Your task to perform on an android device: Open internet settings Image 0: 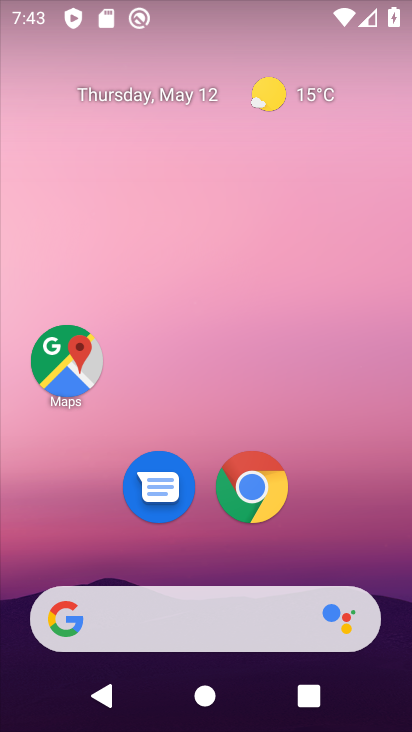
Step 0: drag from (372, 527) to (358, 10)
Your task to perform on an android device: Open internet settings Image 1: 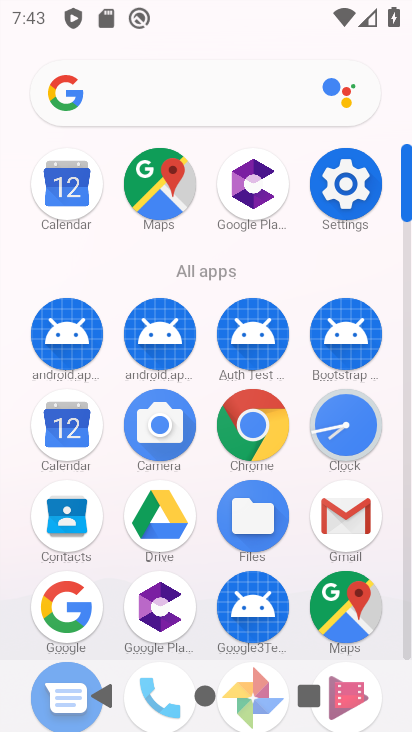
Step 1: click (361, 205)
Your task to perform on an android device: Open internet settings Image 2: 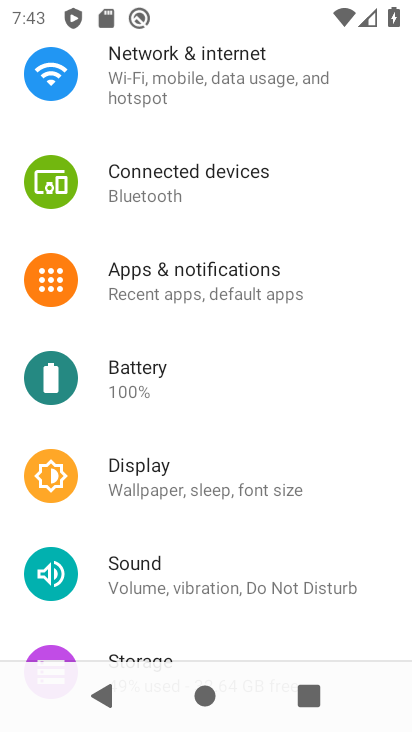
Step 2: drag from (247, 216) to (218, 595)
Your task to perform on an android device: Open internet settings Image 3: 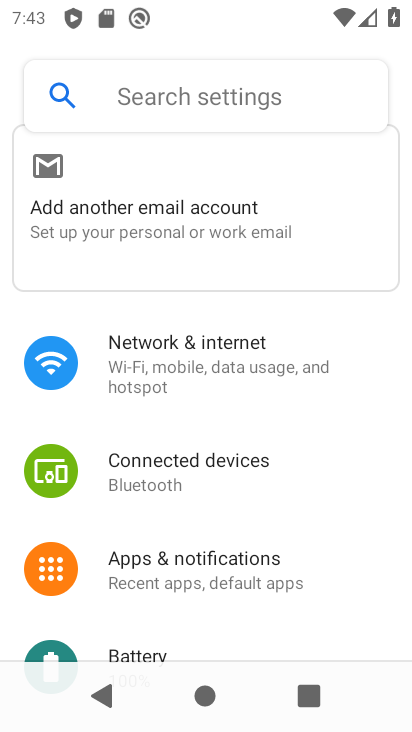
Step 3: click (167, 367)
Your task to perform on an android device: Open internet settings Image 4: 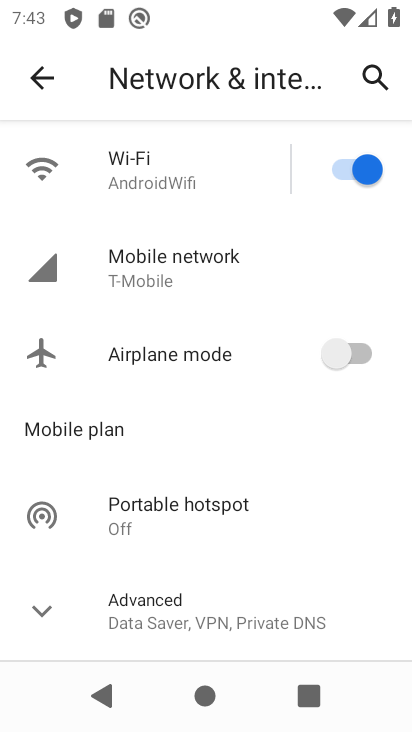
Step 4: click (195, 272)
Your task to perform on an android device: Open internet settings Image 5: 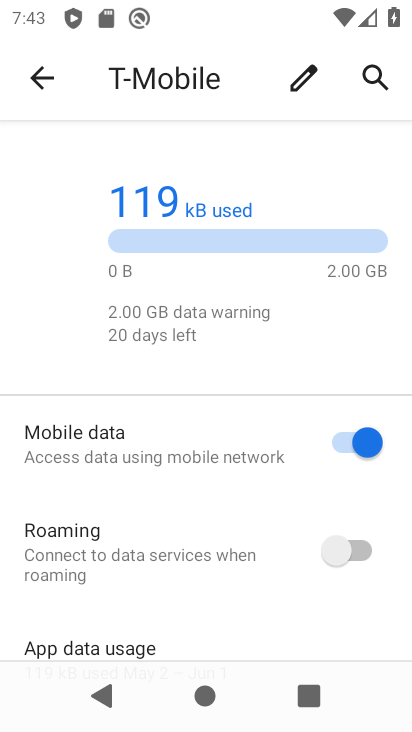
Step 5: task complete